Your task to perform on an android device: turn on the 24-hour format for clock Image 0: 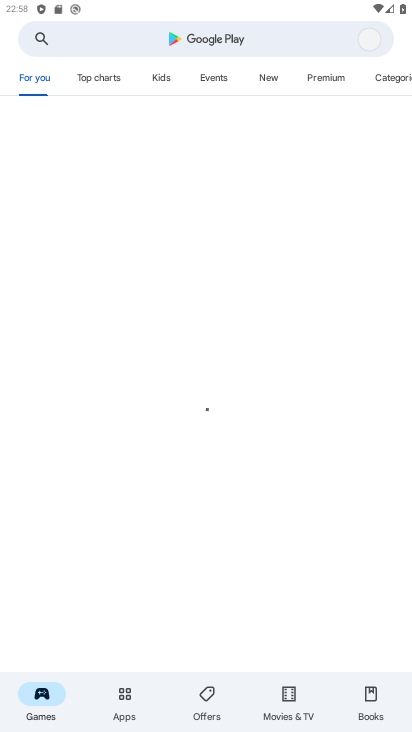
Step 0: press home button
Your task to perform on an android device: turn on the 24-hour format for clock Image 1: 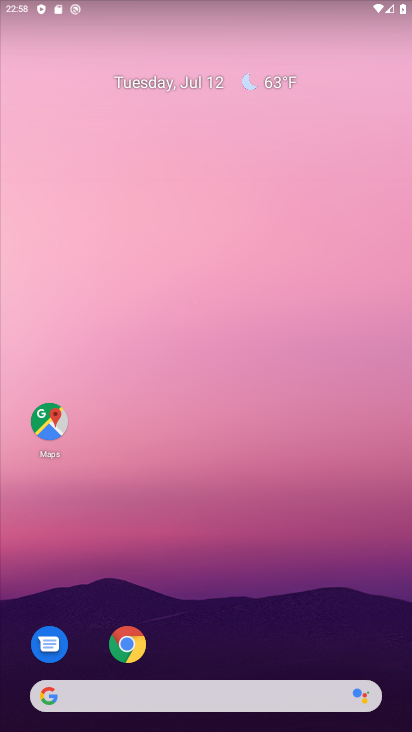
Step 1: drag from (251, 651) to (205, 204)
Your task to perform on an android device: turn on the 24-hour format for clock Image 2: 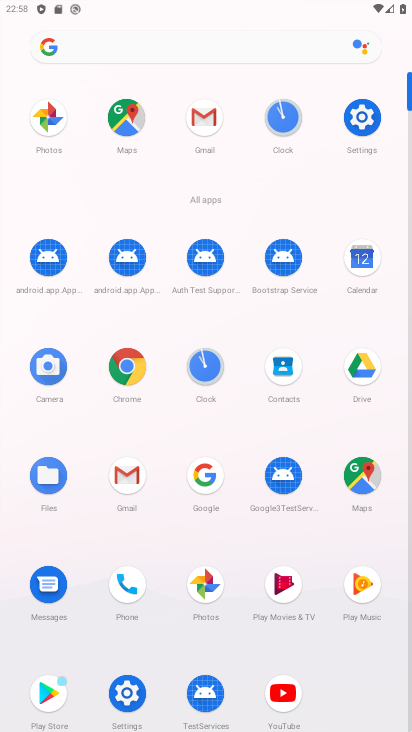
Step 2: click (199, 124)
Your task to perform on an android device: turn on the 24-hour format for clock Image 3: 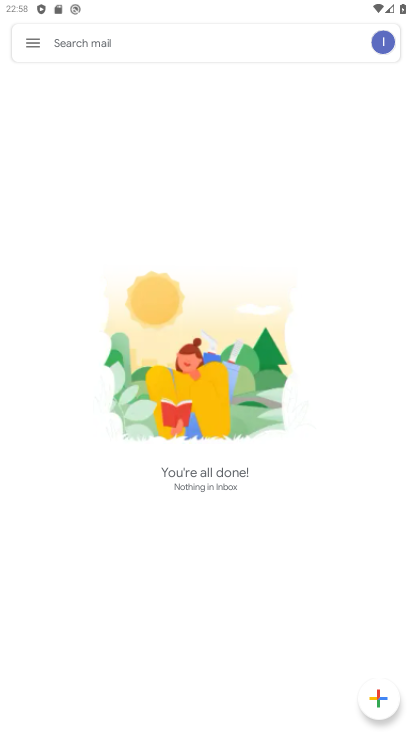
Step 3: press home button
Your task to perform on an android device: turn on the 24-hour format for clock Image 4: 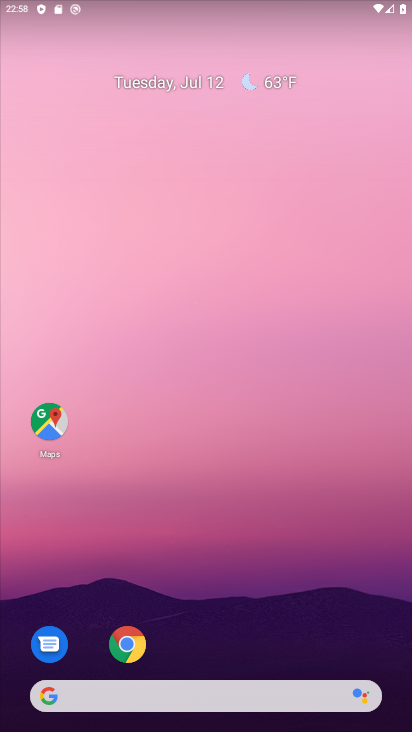
Step 4: drag from (236, 648) to (263, 165)
Your task to perform on an android device: turn on the 24-hour format for clock Image 5: 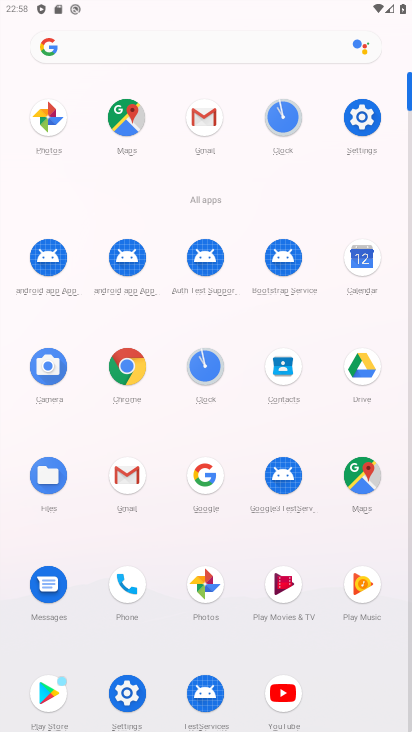
Step 5: click (290, 108)
Your task to perform on an android device: turn on the 24-hour format for clock Image 6: 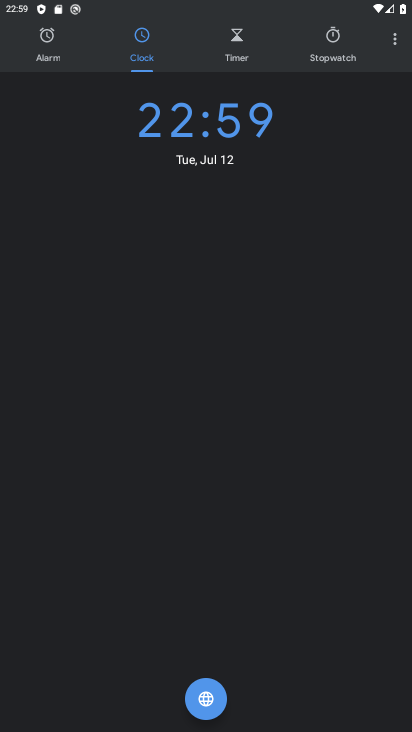
Step 6: click (389, 45)
Your task to perform on an android device: turn on the 24-hour format for clock Image 7: 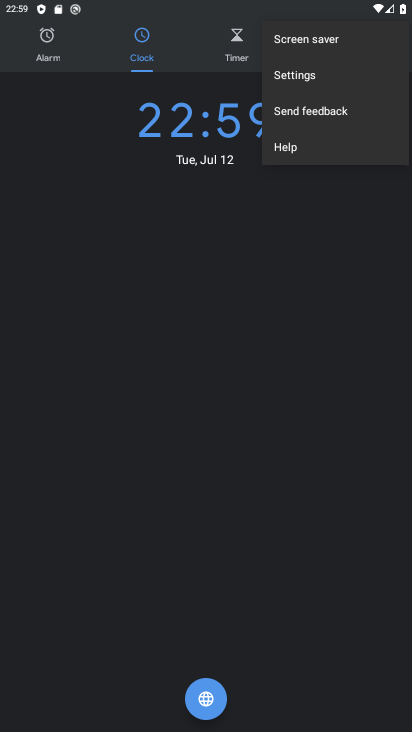
Step 7: click (336, 72)
Your task to perform on an android device: turn on the 24-hour format for clock Image 8: 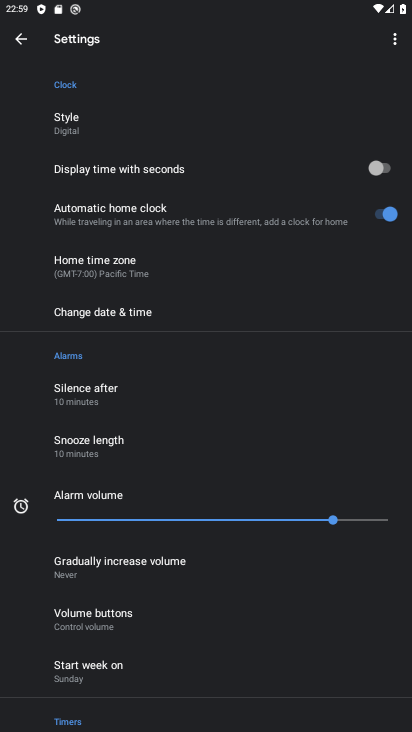
Step 8: click (177, 308)
Your task to perform on an android device: turn on the 24-hour format for clock Image 9: 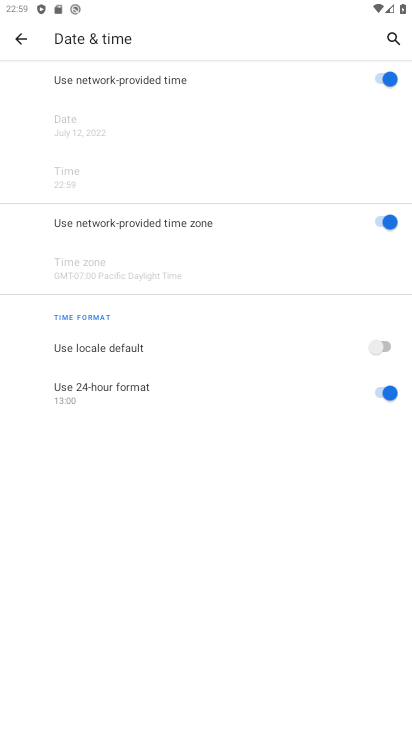
Step 9: task complete